Your task to perform on an android device: turn notification dots off Image 0: 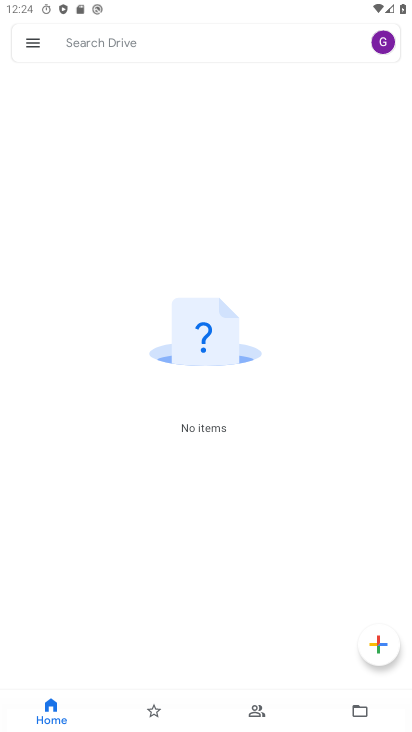
Step 0: drag from (283, 528) to (323, 132)
Your task to perform on an android device: turn notification dots off Image 1: 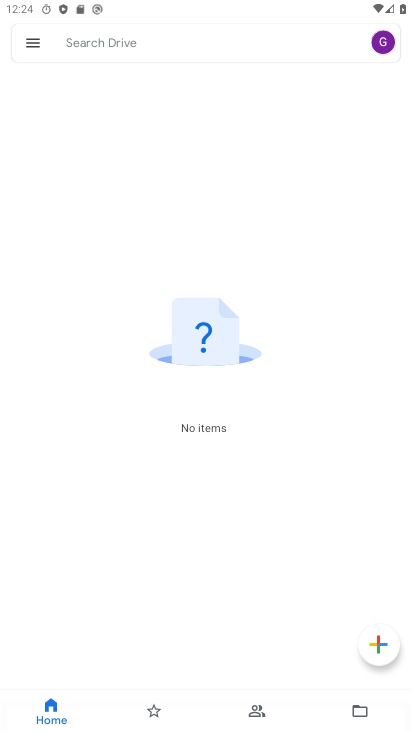
Step 1: drag from (172, 578) to (264, 287)
Your task to perform on an android device: turn notification dots off Image 2: 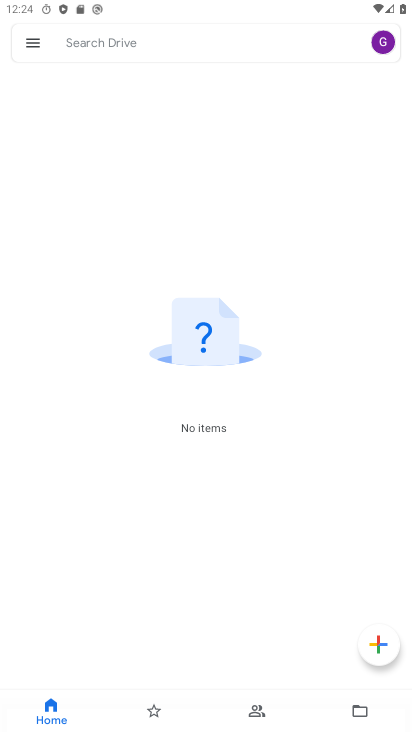
Step 2: drag from (70, 649) to (191, 291)
Your task to perform on an android device: turn notification dots off Image 3: 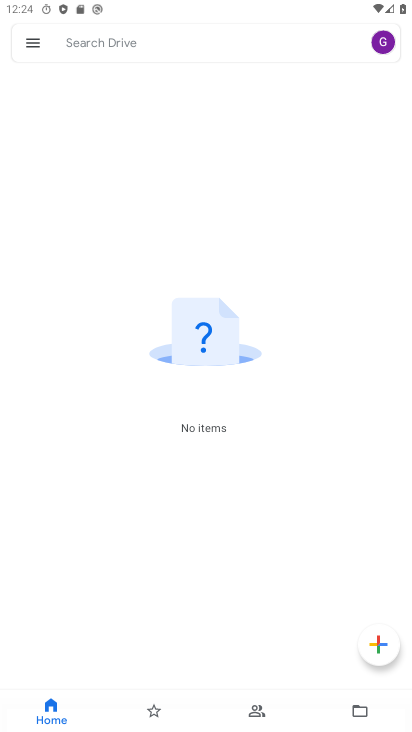
Step 3: press home button
Your task to perform on an android device: turn notification dots off Image 4: 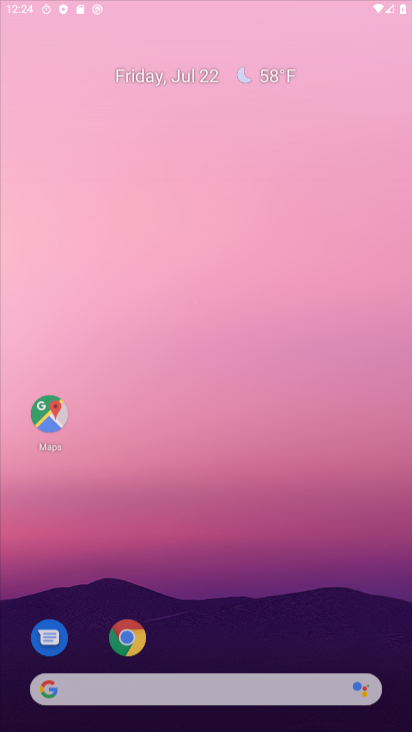
Step 4: drag from (211, 479) to (249, 224)
Your task to perform on an android device: turn notification dots off Image 5: 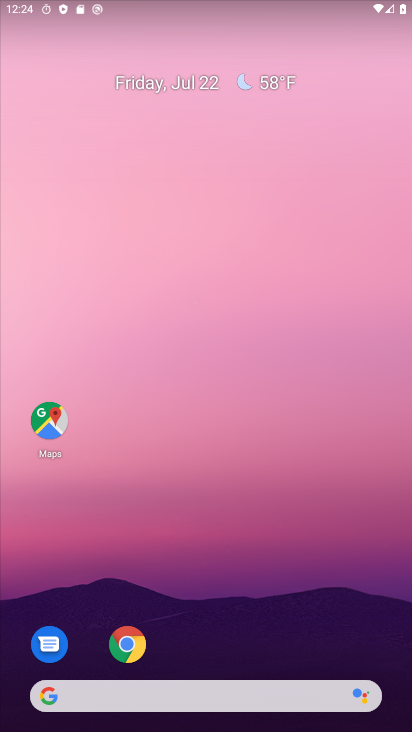
Step 5: drag from (176, 662) to (222, 11)
Your task to perform on an android device: turn notification dots off Image 6: 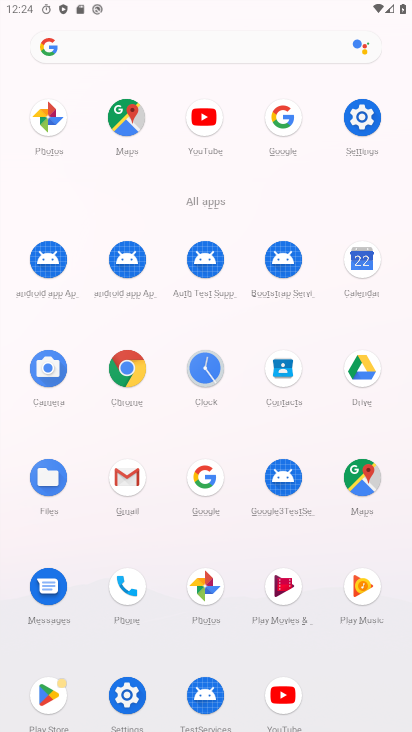
Step 6: click (126, 702)
Your task to perform on an android device: turn notification dots off Image 7: 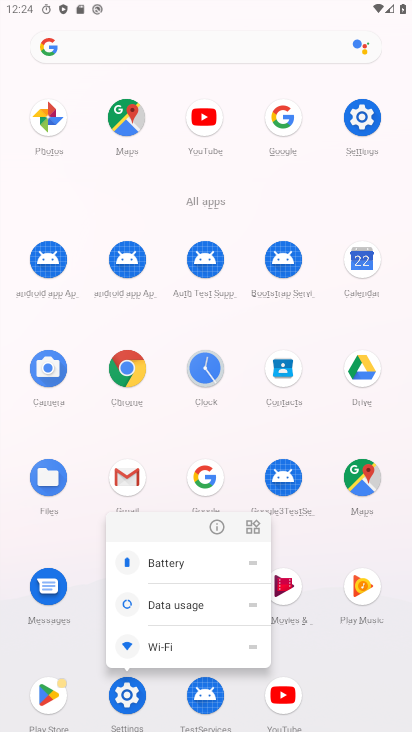
Step 7: click (213, 532)
Your task to perform on an android device: turn notification dots off Image 8: 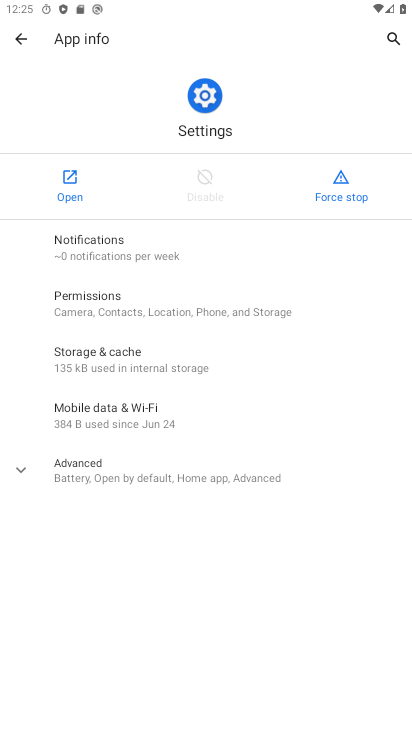
Step 8: click (68, 168)
Your task to perform on an android device: turn notification dots off Image 9: 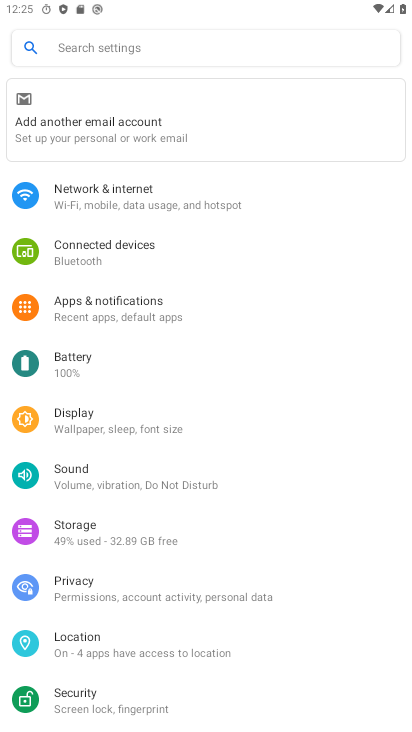
Step 9: click (95, 314)
Your task to perform on an android device: turn notification dots off Image 10: 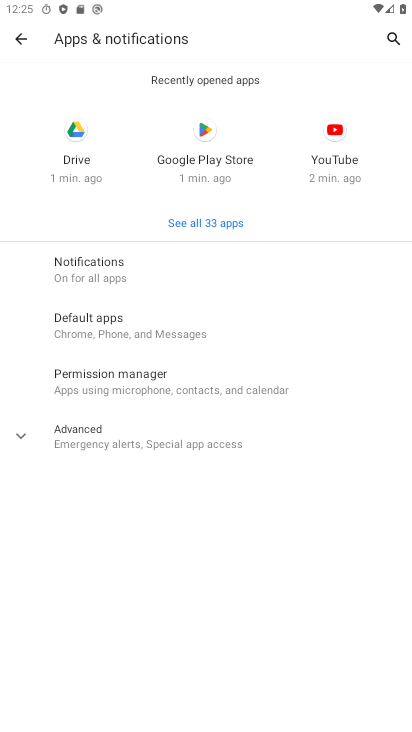
Step 10: click (151, 283)
Your task to perform on an android device: turn notification dots off Image 11: 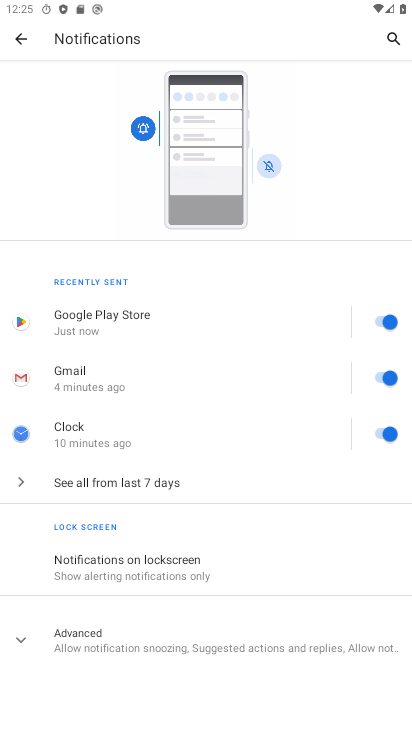
Step 11: click (137, 643)
Your task to perform on an android device: turn notification dots off Image 12: 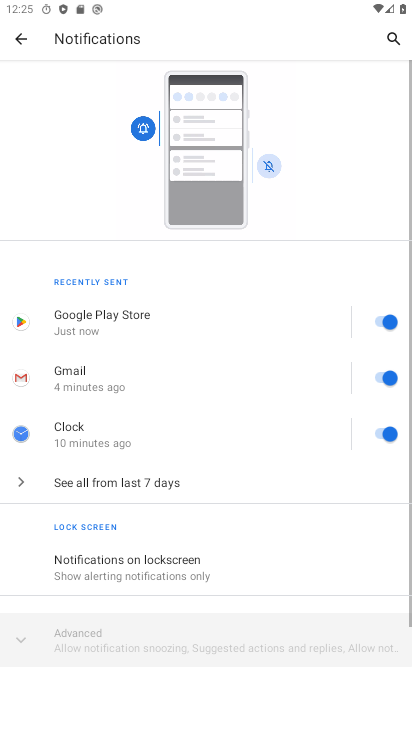
Step 12: drag from (139, 639) to (255, 291)
Your task to perform on an android device: turn notification dots off Image 13: 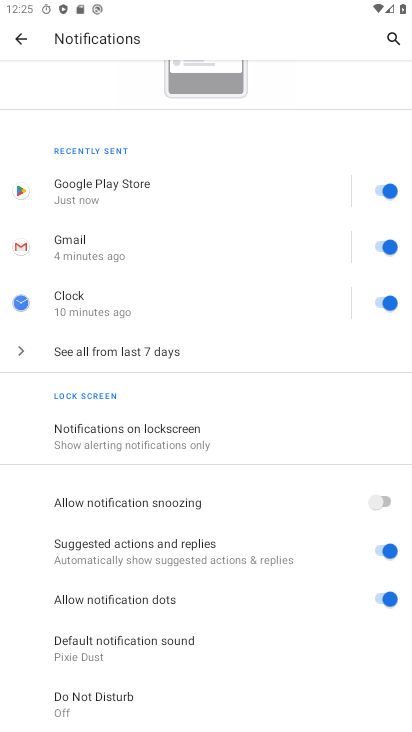
Step 13: click (385, 602)
Your task to perform on an android device: turn notification dots off Image 14: 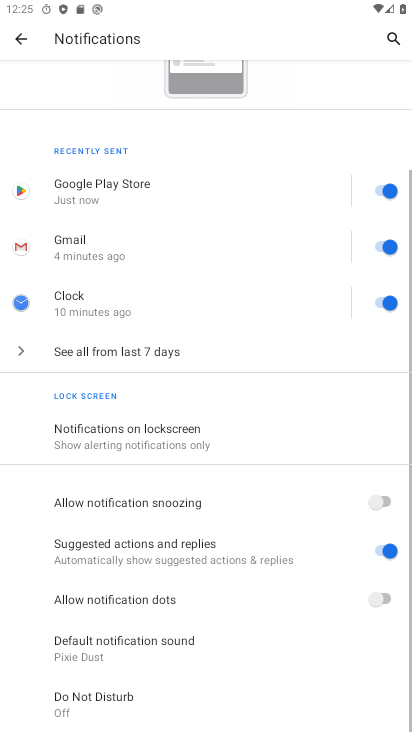
Step 14: task complete